Your task to perform on an android device: Search for logitech g pro on ebay, select the first entry, and add it to the cart. Image 0: 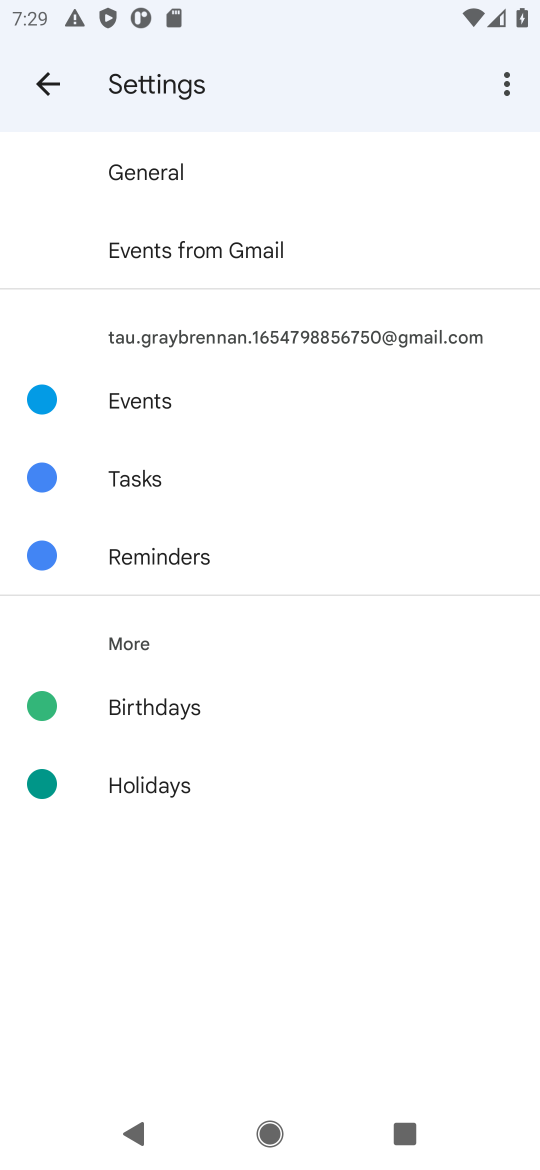
Step 0: press home button
Your task to perform on an android device: Search for logitech g pro on ebay, select the first entry, and add it to the cart. Image 1: 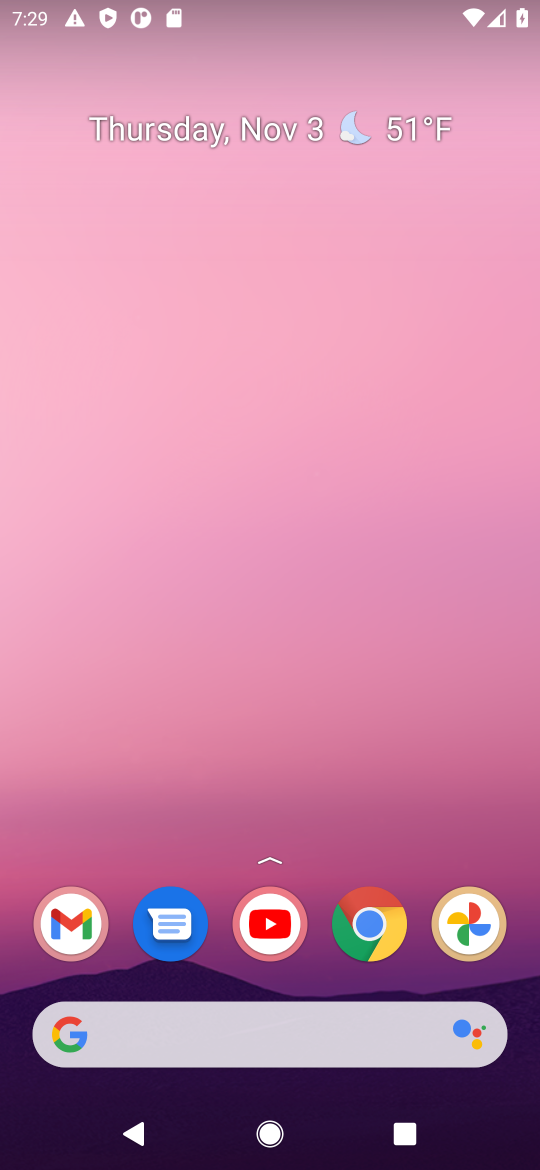
Step 1: drag from (197, 1113) to (358, 119)
Your task to perform on an android device: Search for logitech g pro on ebay, select the first entry, and add it to the cart. Image 2: 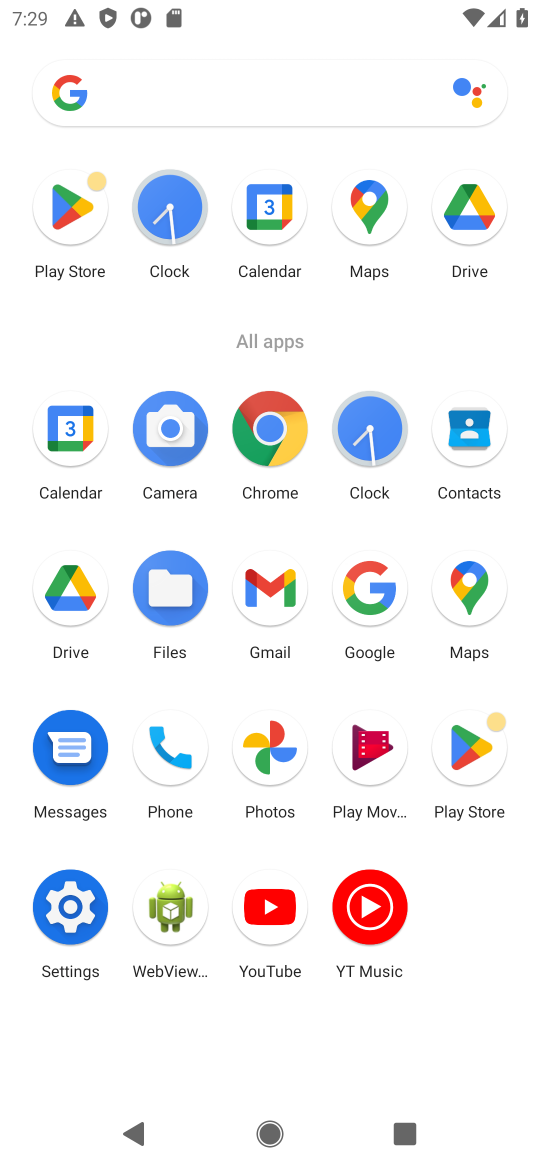
Step 2: click (356, 584)
Your task to perform on an android device: Search for logitech g pro on ebay, select the first entry, and add it to the cart. Image 3: 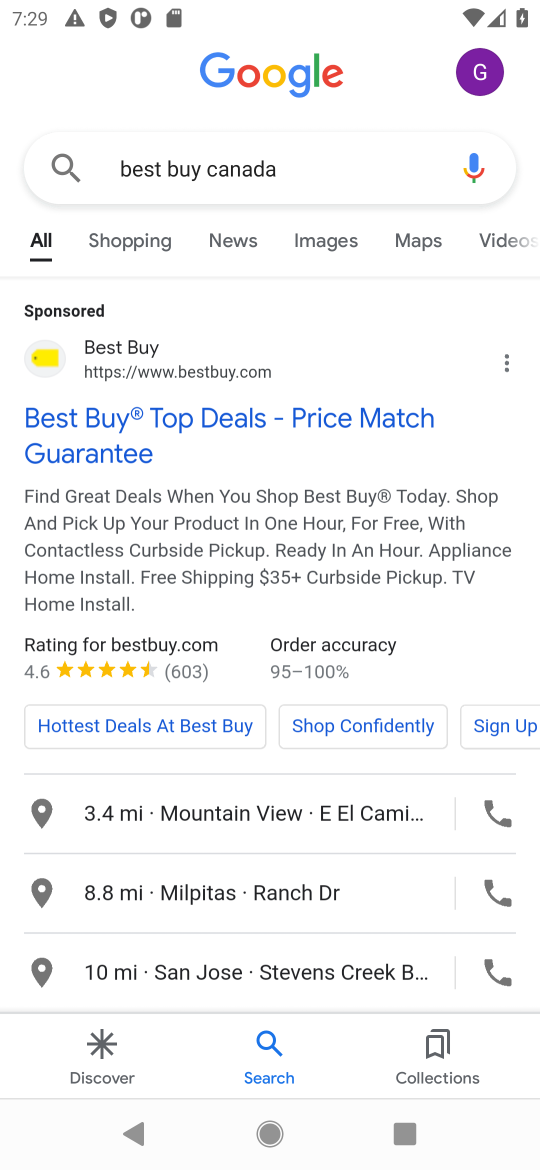
Step 3: click (309, 158)
Your task to perform on an android device: Search for logitech g pro on ebay, select the first entry, and add it to the cart. Image 4: 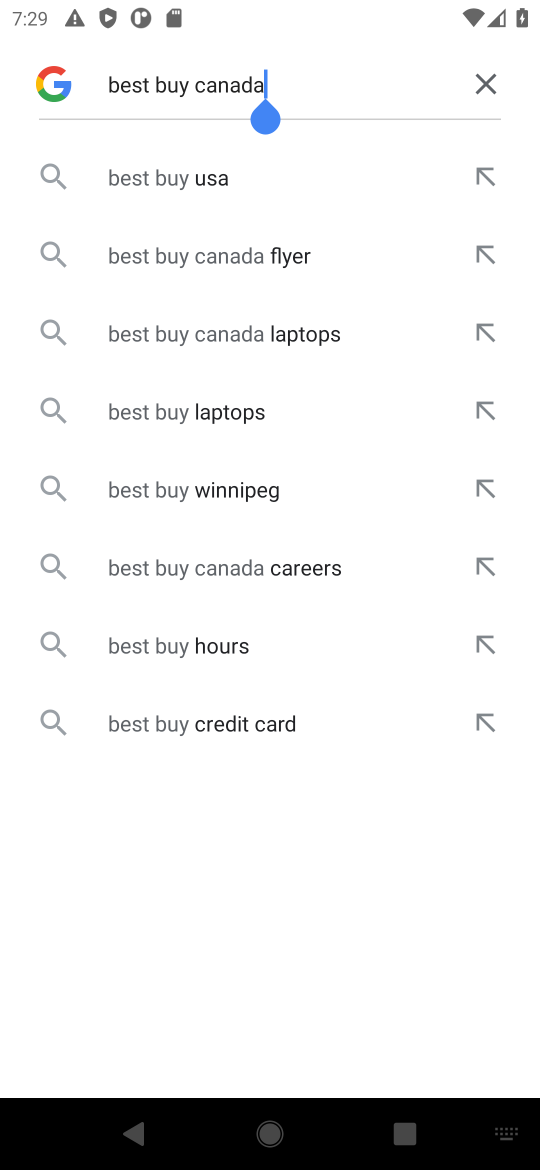
Step 4: click (486, 73)
Your task to perform on an android device: Search for logitech g pro on ebay, select the first entry, and add it to the cart. Image 5: 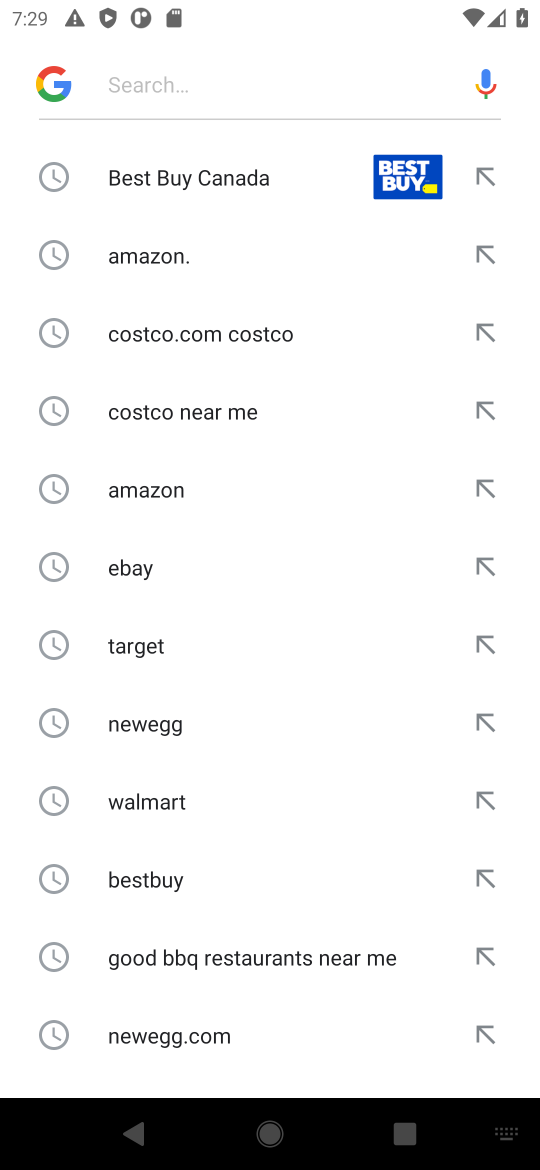
Step 5: click (228, 78)
Your task to perform on an android device: Search for logitech g pro on ebay, select the first entry, and add it to the cart. Image 6: 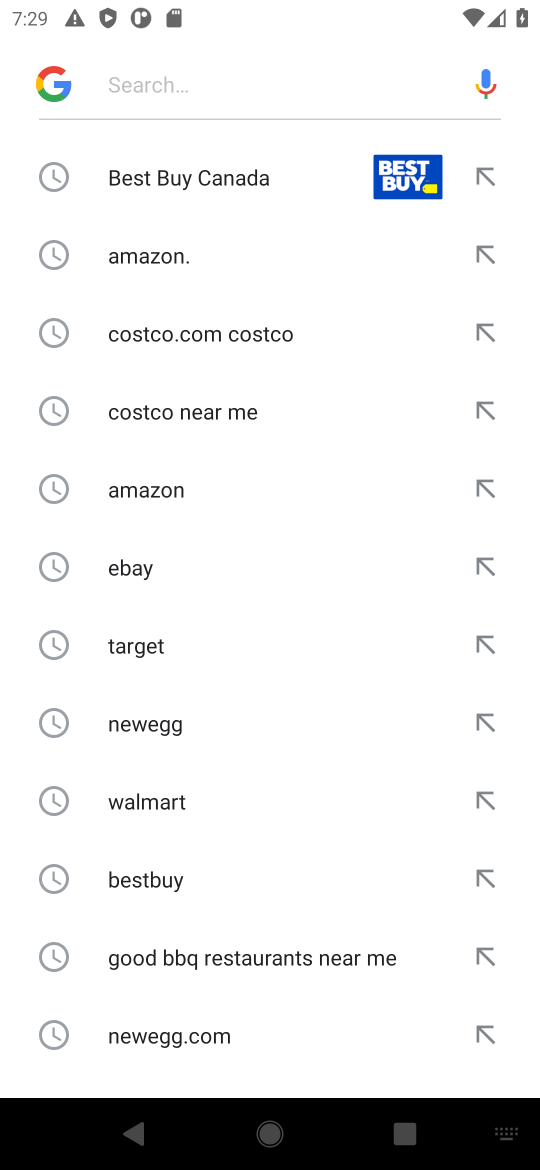
Step 6: type "ebay "
Your task to perform on an android device: Search for logitech g pro on ebay, select the first entry, and add it to the cart. Image 7: 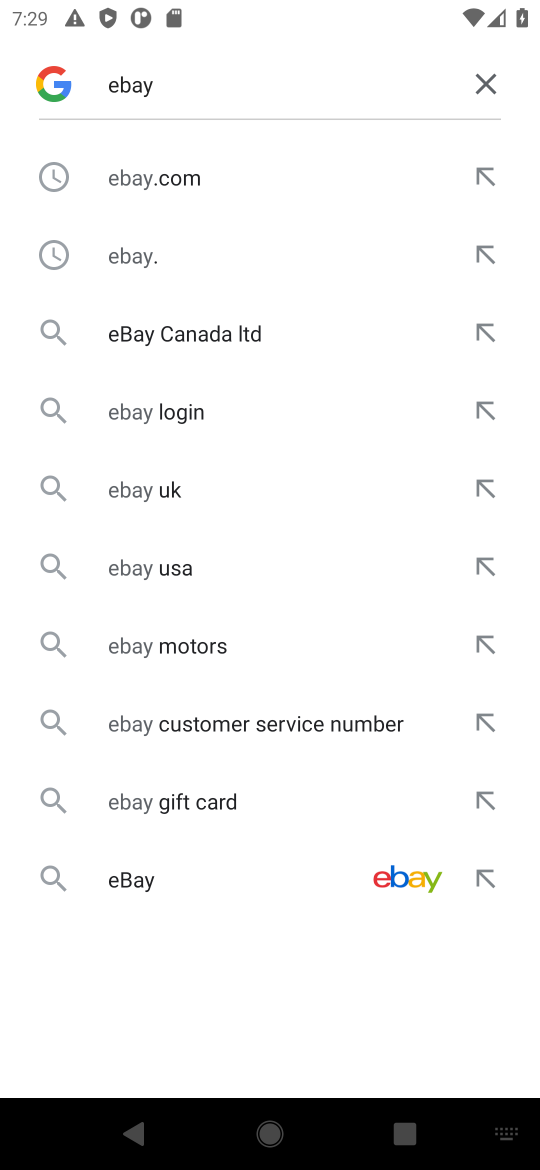
Step 7: click (146, 182)
Your task to perform on an android device: Search for logitech g pro on ebay, select the first entry, and add it to the cart. Image 8: 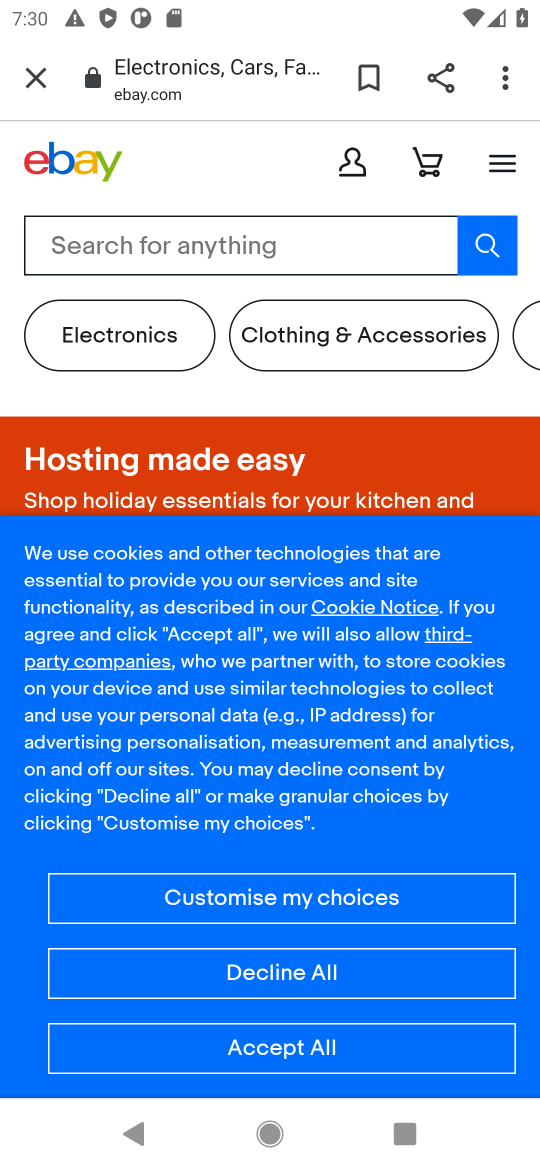
Step 8: click (227, 1053)
Your task to perform on an android device: Search for logitech g pro on ebay, select the first entry, and add it to the cart. Image 9: 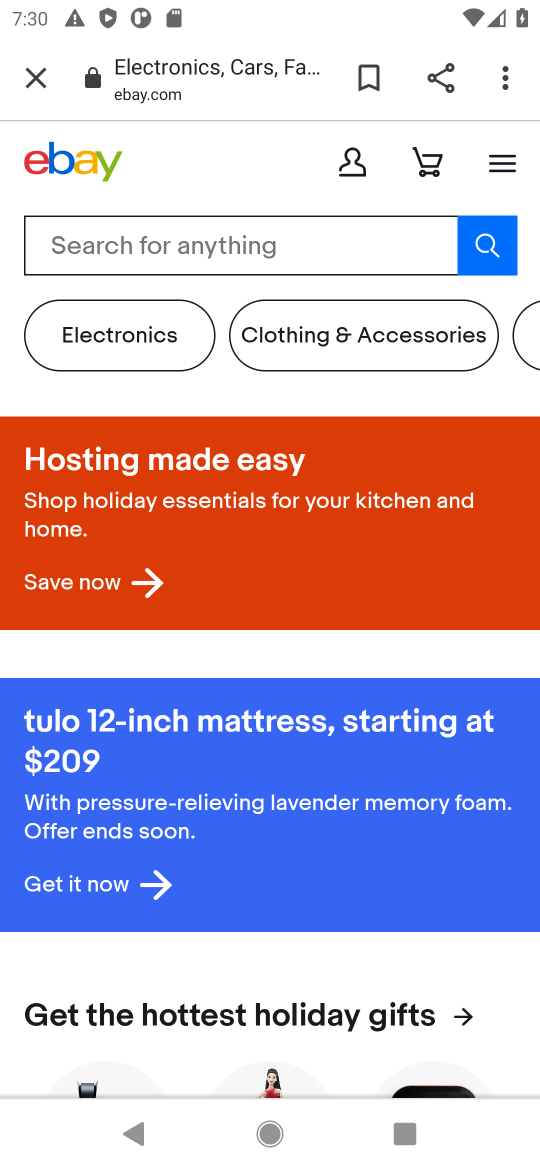
Step 9: click (291, 235)
Your task to perform on an android device: Search for logitech g pro on ebay, select the first entry, and add it to the cart. Image 10: 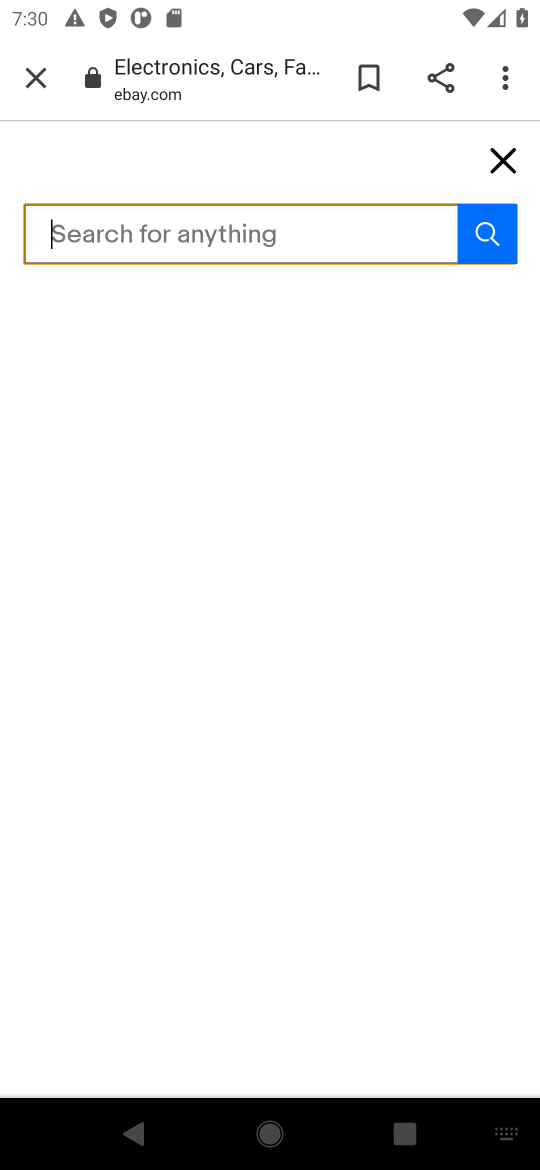
Step 10: type "logitech g pro  "
Your task to perform on an android device: Search for logitech g pro on ebay, select the first entry, and add it to the cart. Image 11: 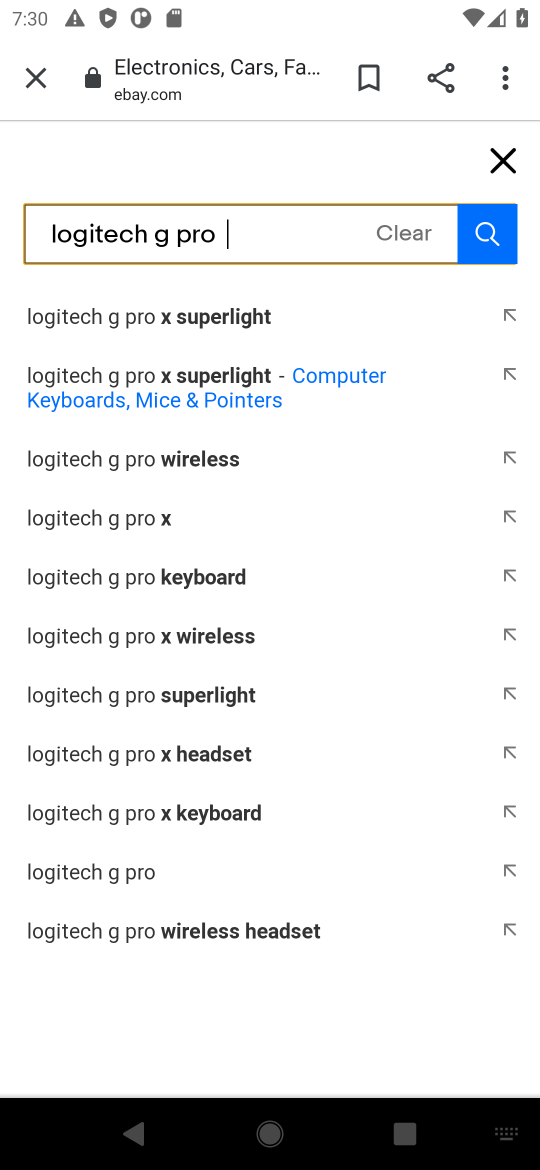
Step 11: click (239, 316)
Your task to perform on an android device: Search for logitech g pro on ebay, select the first entry, and add it to the cart. Image 12: 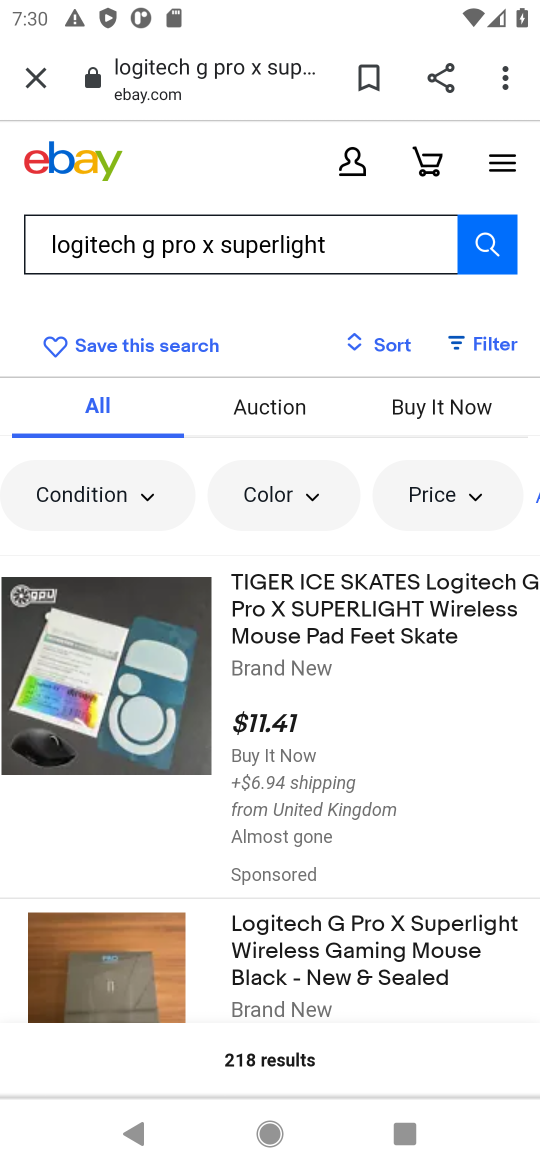
Step 12: drag from (269, 939) to (326, 406)
Your task to perform on an android device: Search for logitech g pro on ebay, select the first entry, and add it to the cart. Image 13: 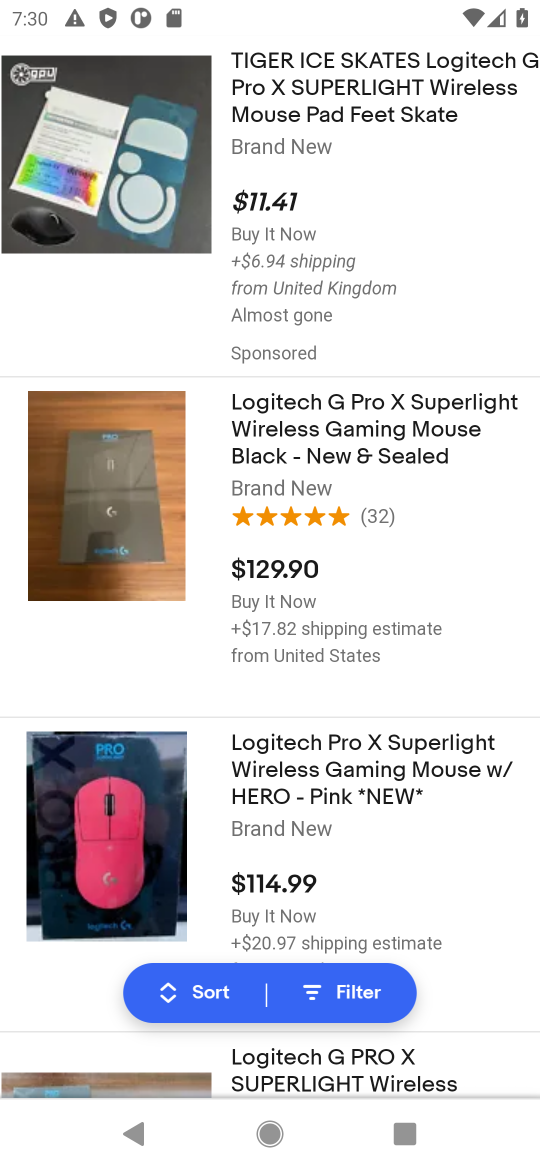
Step 13: click (336, 758)
Your task to perform on an android device: Search for logitech g pro on ebay, select the first entry, and add it to the cart. Image 14: 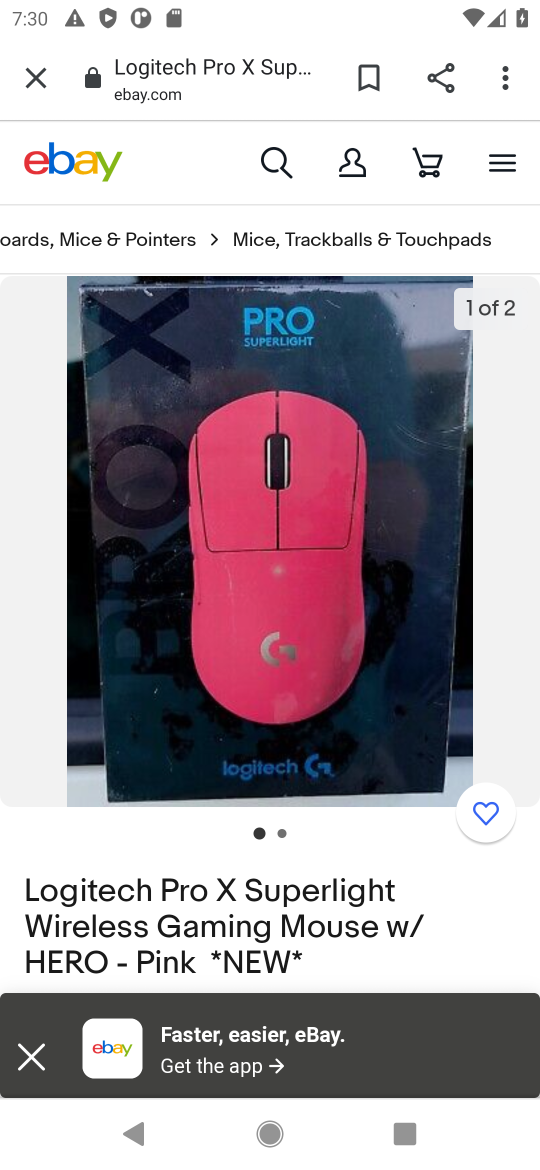
Step 14: click (33, 1059)
Your task to perform on an android device: Search for logitech g pro on ebay, select the first entry, and add it to the cart. Image 15: 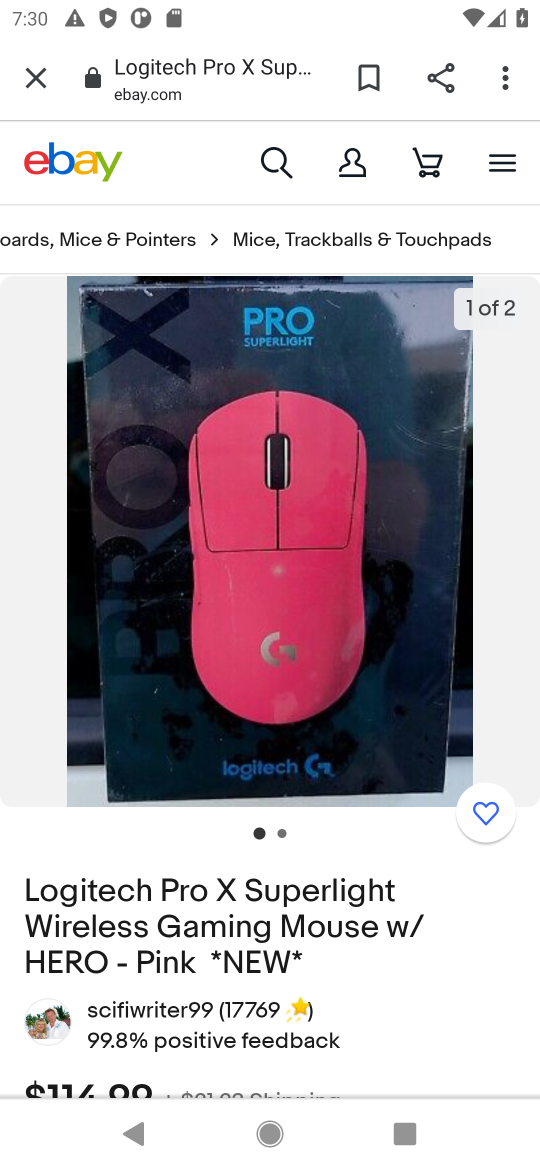
Step 15: drag from (377, 973) to (385, 390)
Your task to perform on an android device: Search for logitech g pro on ebay, select the first entry, and add it to the cart. Image 16: 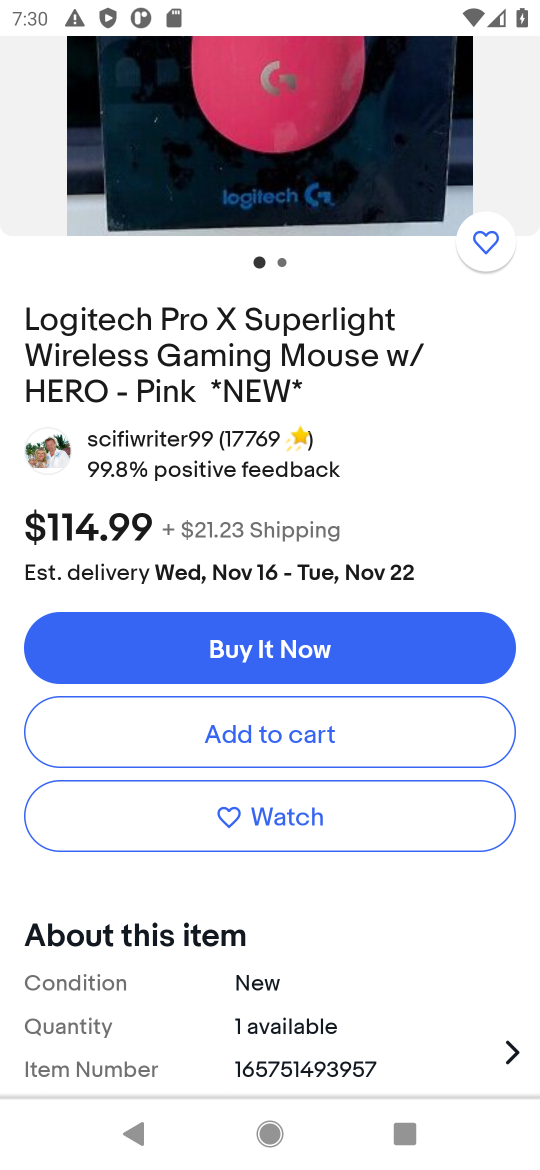
Step 16: click (320, 722)
Your task to perform on an android device: Search for logitech g pro on ebay, select the first entry, and add it to the cart. Image 17: 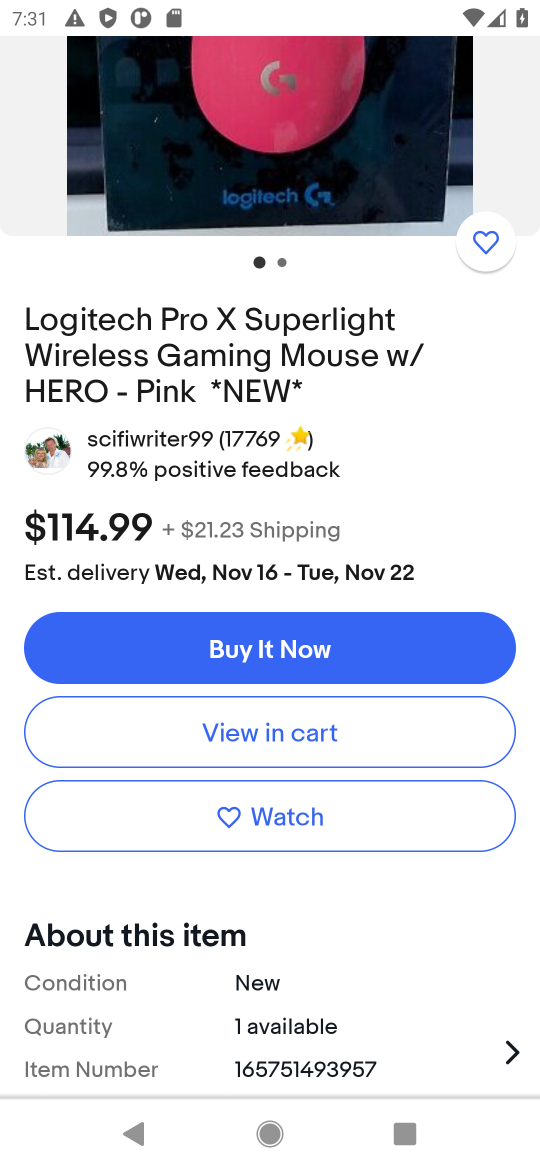
Step 17: click (245, 722)
Your task to perform on an android device: Search for logitech g pro on ebay, select the first entry, and add it to the cart. Image 18: 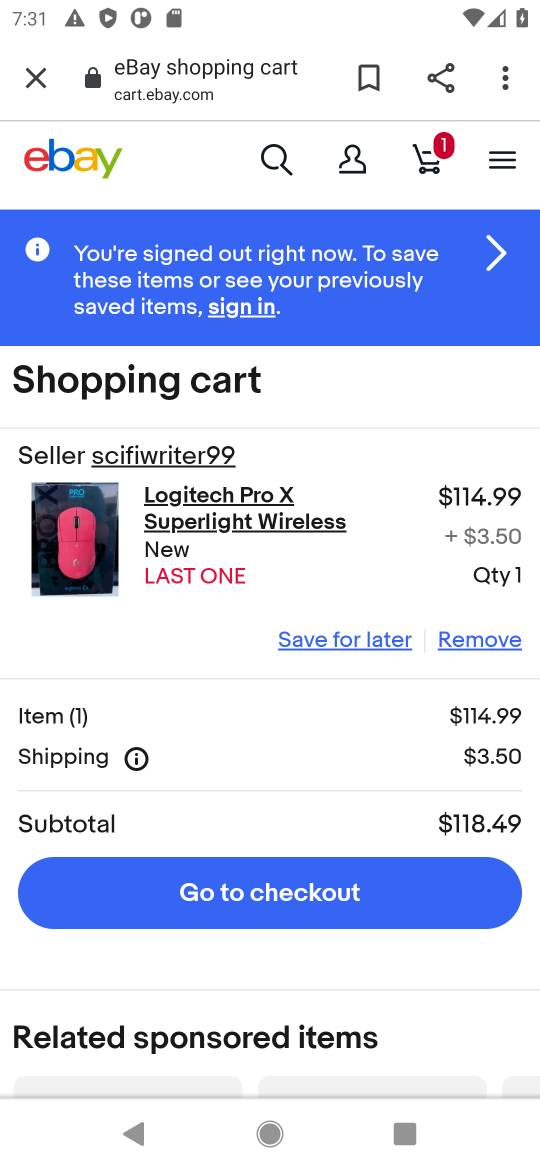
Step 18: task complete